Your task to perform on an android device: change the clock display to digital Image 0: 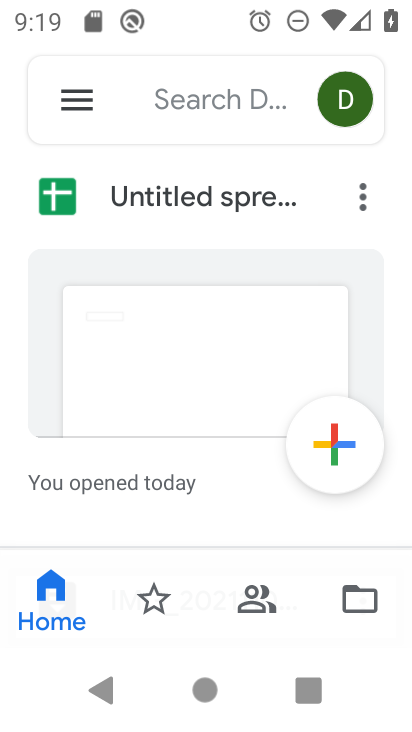
Step 0: press home button
Your task to perform on an android device: change the clock display to digital Image 1: 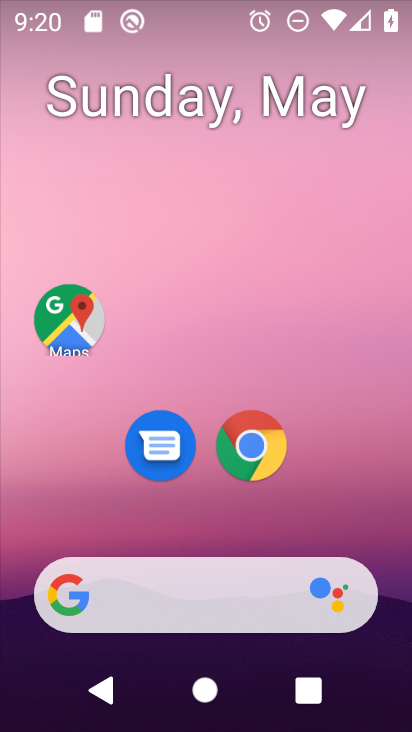
Step 1: drag from (200, 541) to (227, 215)
Your task to perform on an android device: change the clock display to digital Image 2: 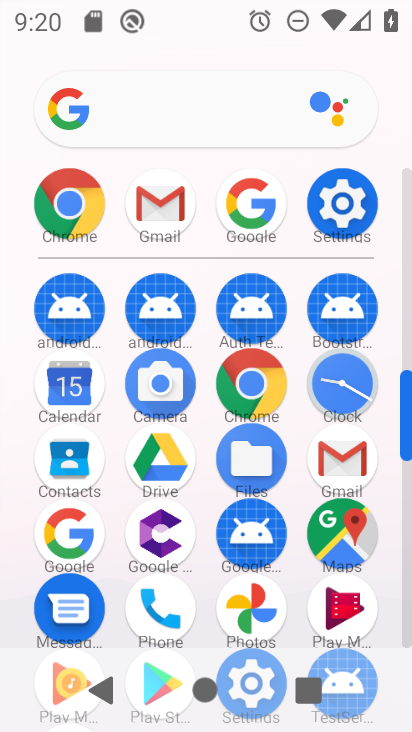
Step 2: click (353, 383)
Your task to perform on an android device: change the clock display to digital Image 3: 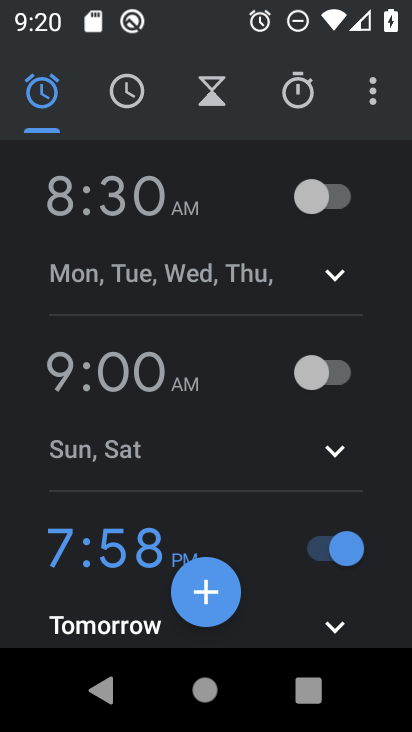
Step 3: click (373, 106)
Your task to perform on an android device: change the clock display to digital Image 4: 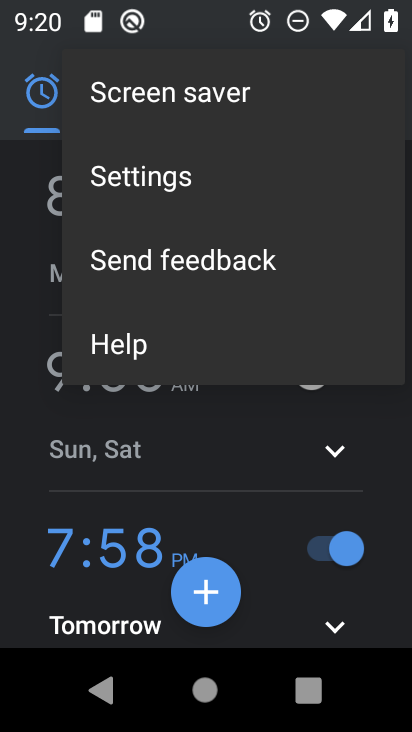
Step 4: click (188, 178)
Your task to perform on an android device: change the clock display to digital Image 5: 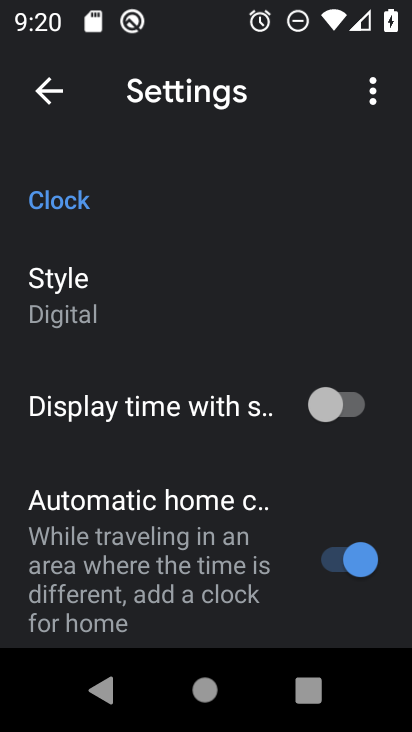
Step 5: task complete